Your task to perform on an android device: Open Google Image 0: 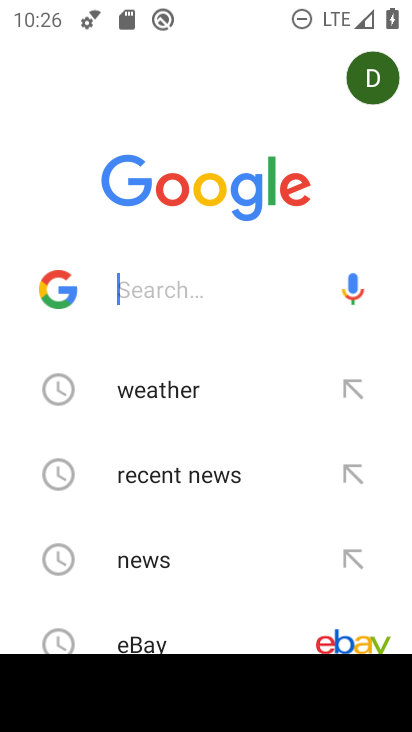
Step 0: press back button
Your task to perform on an android device: Open Google Image 1: 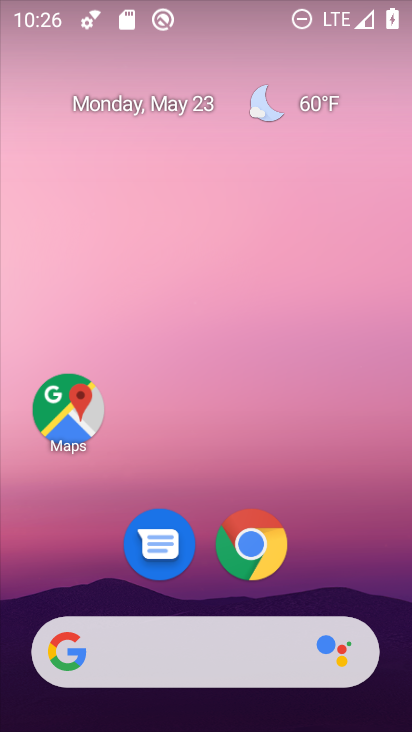
Step 1: drag from (331, 567) to (267, 283)
Your task to perform on an android device: Open Google Image 2: 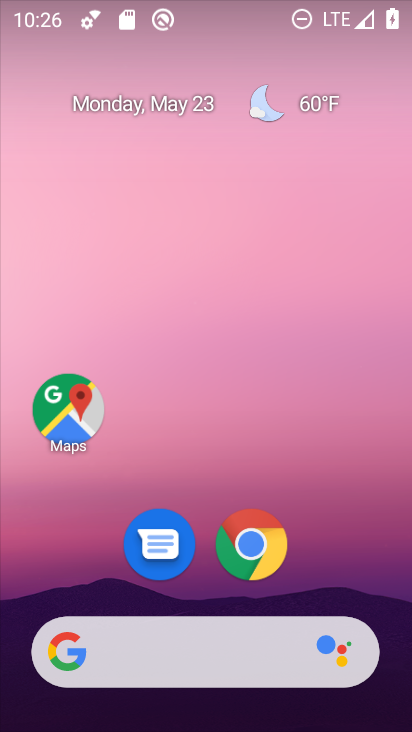
Step 2: drag from (348, 541) to (182, 52)
Your task to perform on an android device: Open Google Image 3: 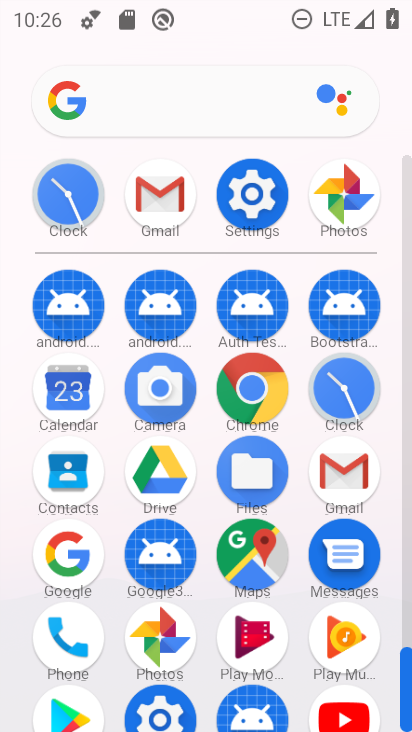
Step 3: click (80, 565)
Your task to perform on an android device: Open Google Image 4: 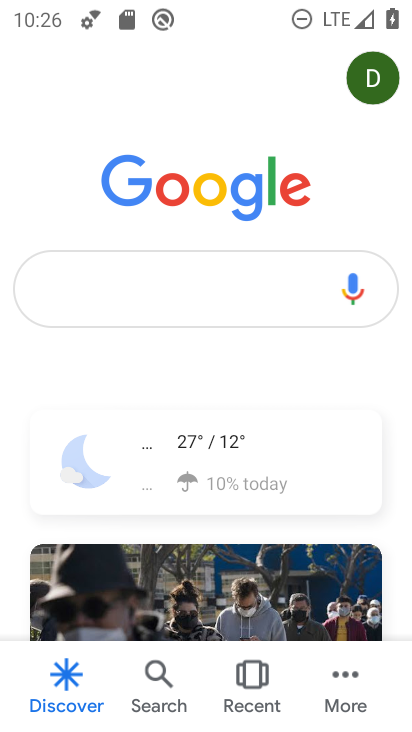
Step 4: task complete